Your task to perform on an android device: turn on data saver in the chrome app Image 0: 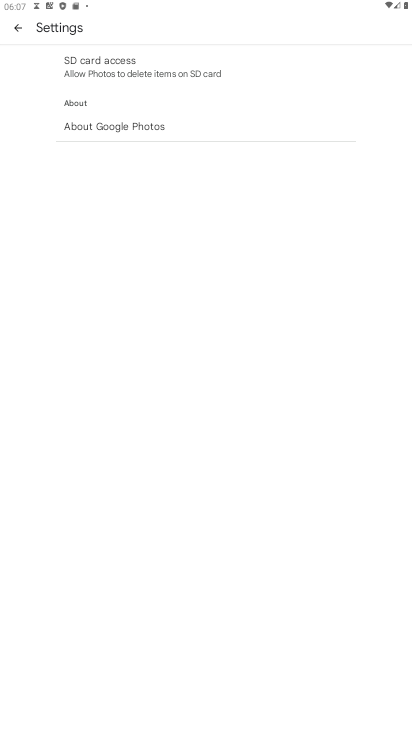
Step 0: press home button
Your task to perform on an android device: turn on data saver in the chrome app Image 1: 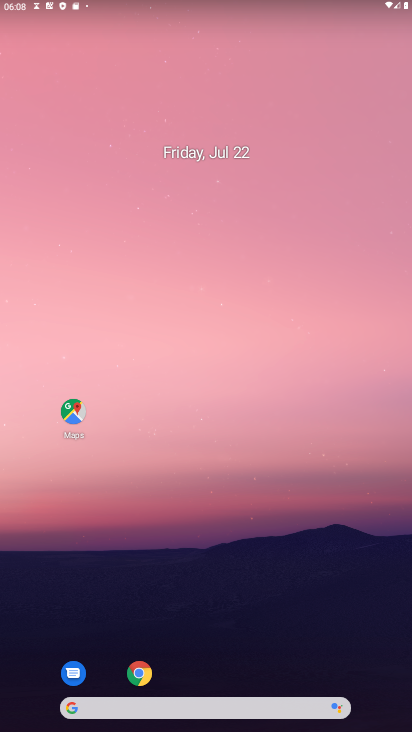
Step 1: drag from (203, 663) to (229, 108)
Your task to perform on an android device: turn on data saver in the chrome app Image 2: 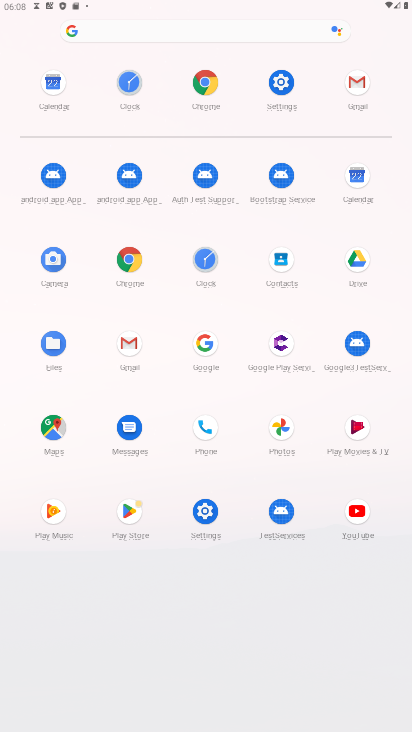
Step 2: click (207, 78)
Your task to perform on an android device: turn on data saver in the chrome app Image 3: 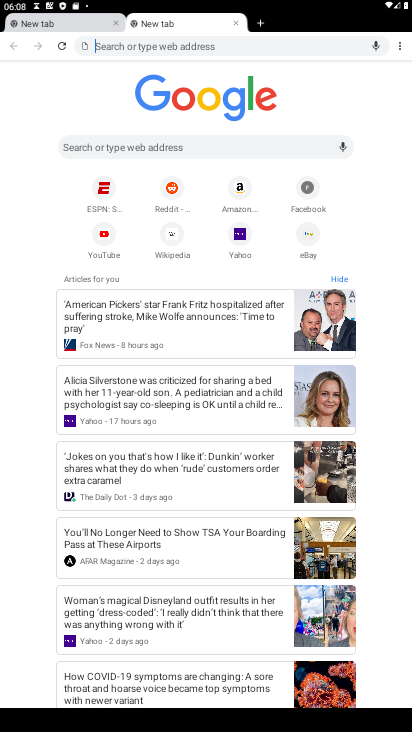
Step 3: drag from (402, 41) to (310, 207)
Your task to perform on an android device: turn on data saver in the chrome app Image 4: 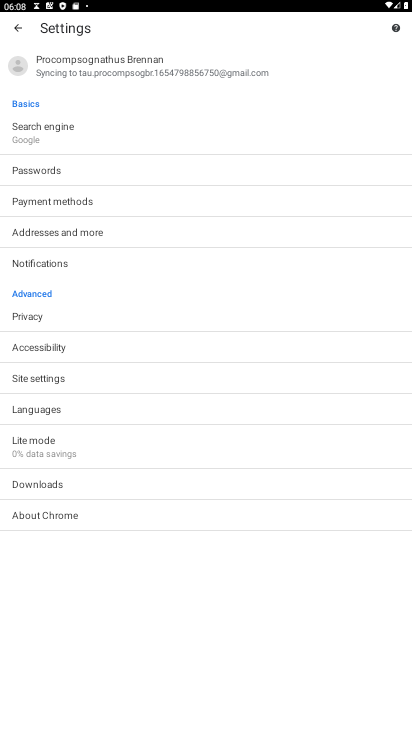
Step 4: click (32, 447)
Your task to perform on an android device: turn on data saver in the chrome app Image 5: 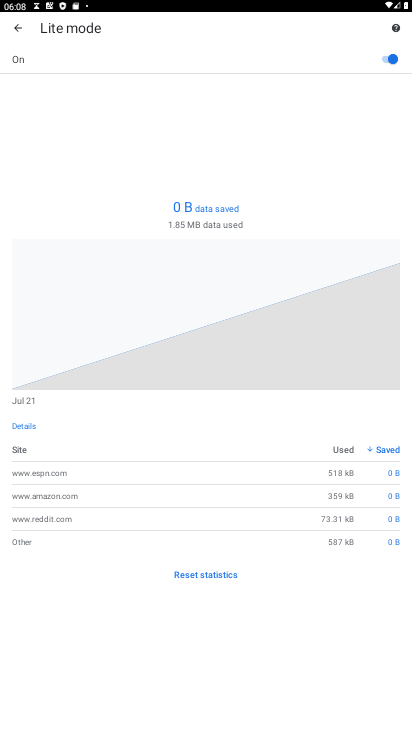
Step 5: task complete